Your task to perform on an android device: open the mobile data screen to see how much data has been used Image 0: 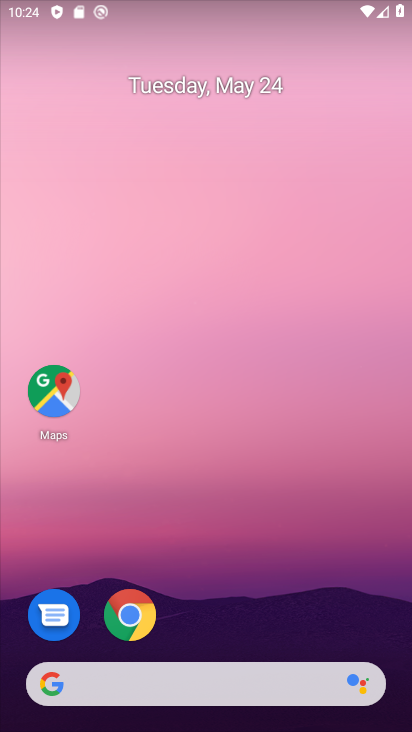
Step 0: drag from (282, 511) to (277, 176)
Your task to perform on an android device: open the mobile data screen to see how much data has been used Image 1: 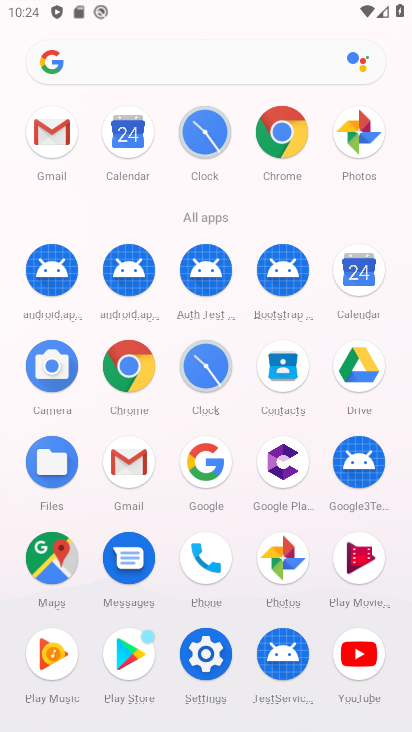
Step 1: click (198, 644)
Your task to perform on an android device: open the mobile data screen to see how much data has been used Image 2: 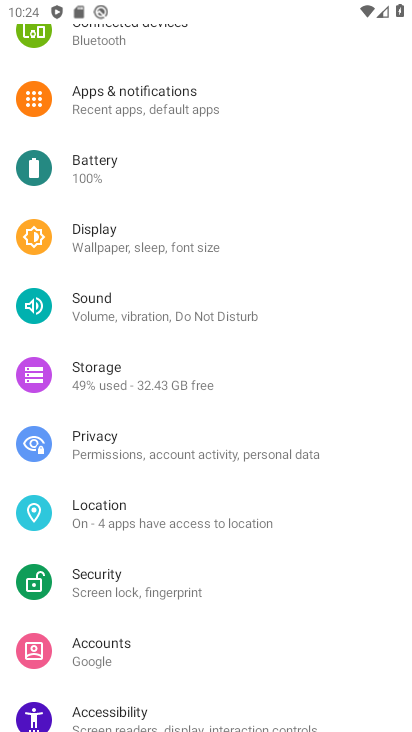
Step 2: drag from (279, 236) to (253, 581)
Your task to perform on an android device: open the mobile data screen to see how much data has been used Image 3: 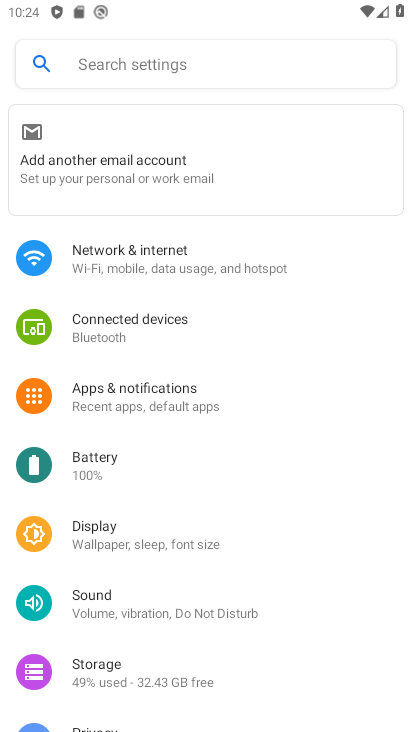
Step 3: click (215, 254)
Your task to perform on an android device: open the mobile data screen to see how much data has been used Image 4: 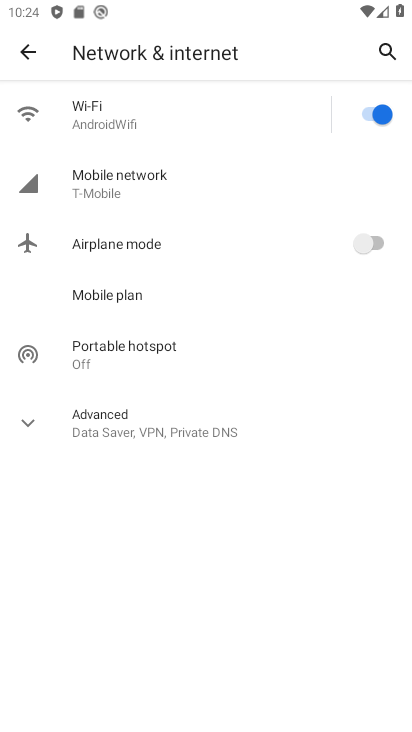
Step 4: click (142, 198)
Your task to perform on an android device: open the mobile data screen to see how much data has been used Image 5: 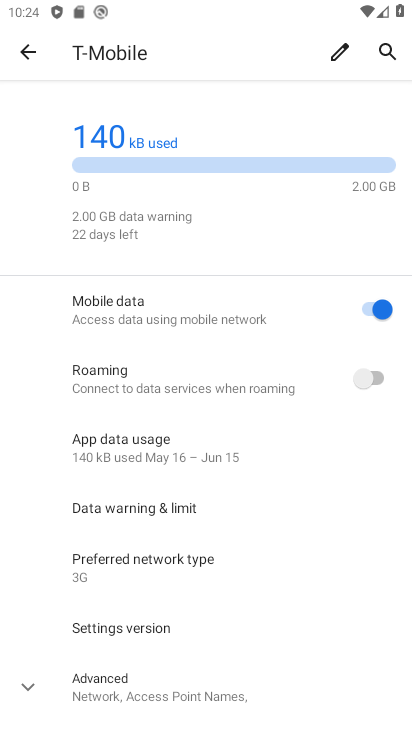
Step 5: task complete